Your task to perform on an android device: open a bookmark in the chrome app Image 0: 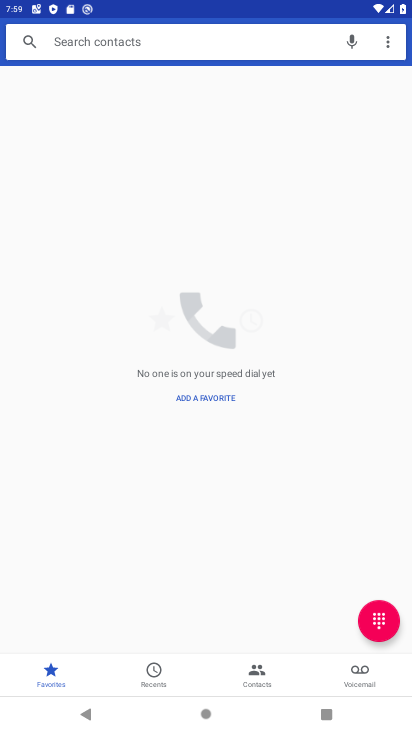
Step 0: press home button
Your task to perform on an android device: open a bookmark in the chrome app Image 1: 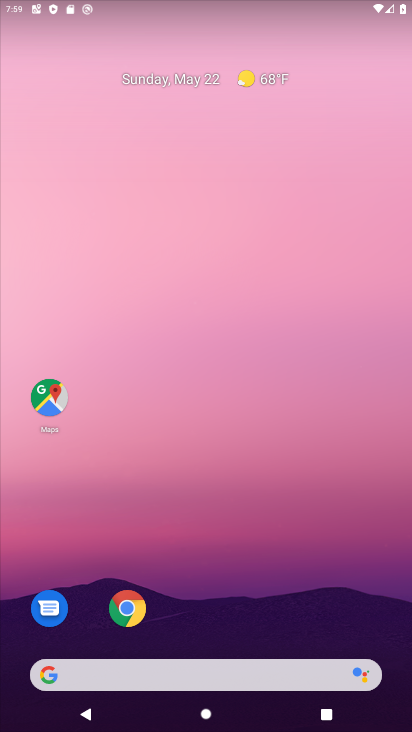
Step 1: click (136, 608)
Your task to perform on an android device: open a bookmark in the chrome app Image 2: 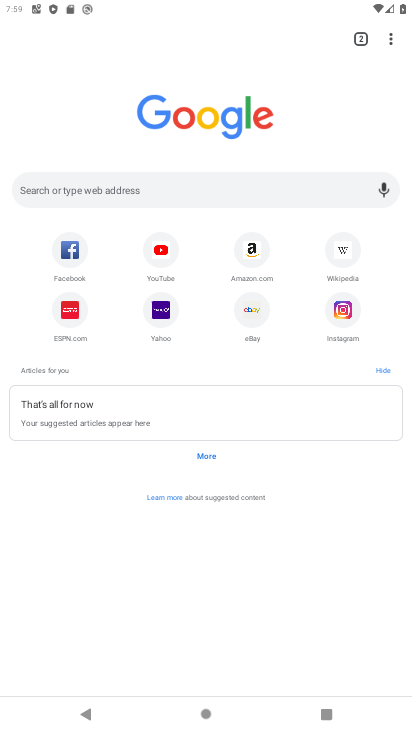
Step 2: click (391, 39)
Your task to perform on an android device: open a bookmark in the chrome app Image 3: 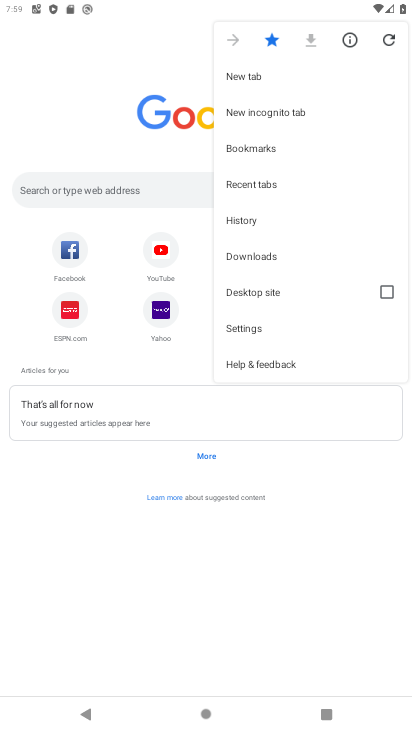
Step 3: click (244, 146)
Your task to perform on an android device: open a bookmark in the chrome app Image 4: 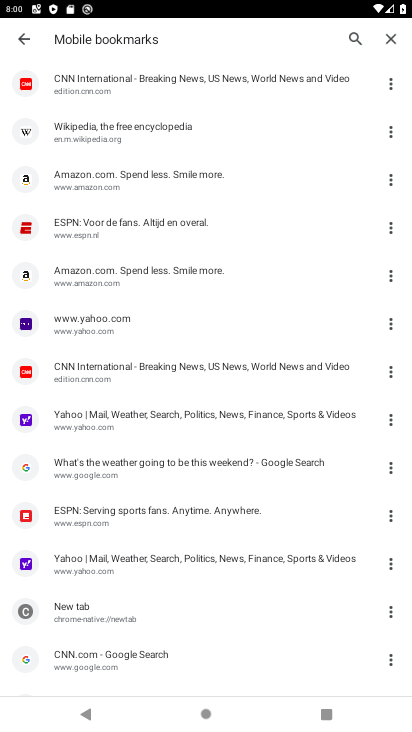
Step 4: click (136, 123)
Your task to perform on an android device: open a bookmark in the chrome app Image 5: 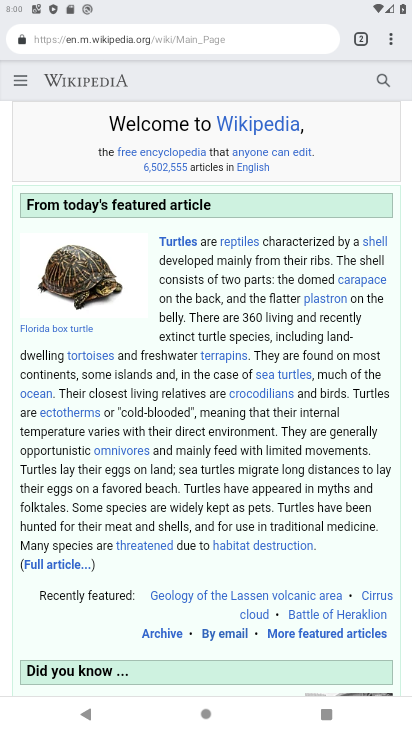
Step 5: task complete